Your task to perform on an android device: add a contact in the contacts app Image 0: 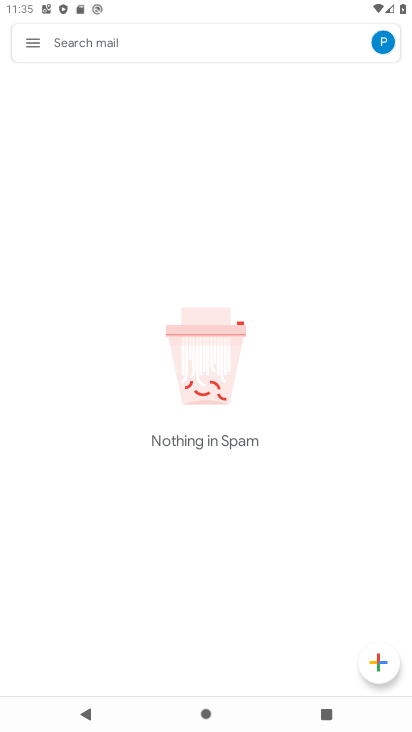
Step 0: press home button
Your task to perform on an android device: add a contact in the contacts app Image 1: 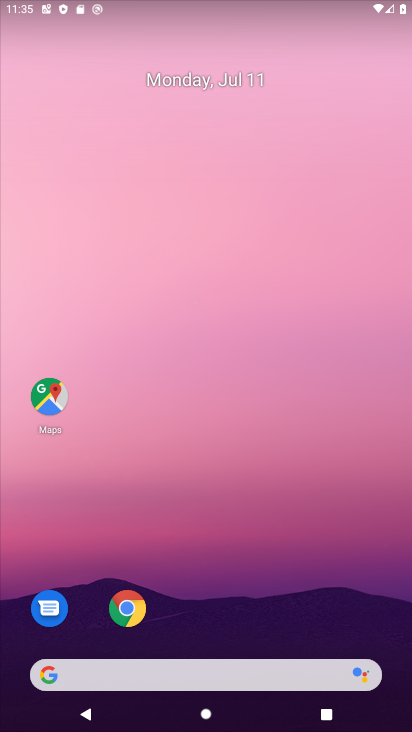
Step 1: drag from (222, 615) to (268, 64)
Your task to perform on an android device: add a contact in the contacts app Image 2: 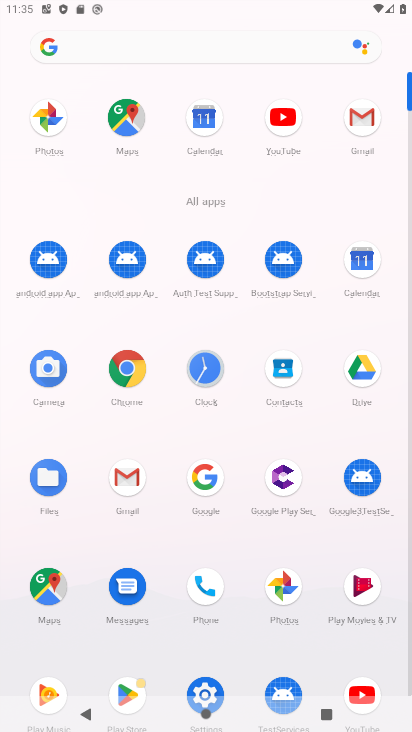
Step 2: click (285, 382)
Your task to perform on an android device: add a contact in the contacts app Image 3: 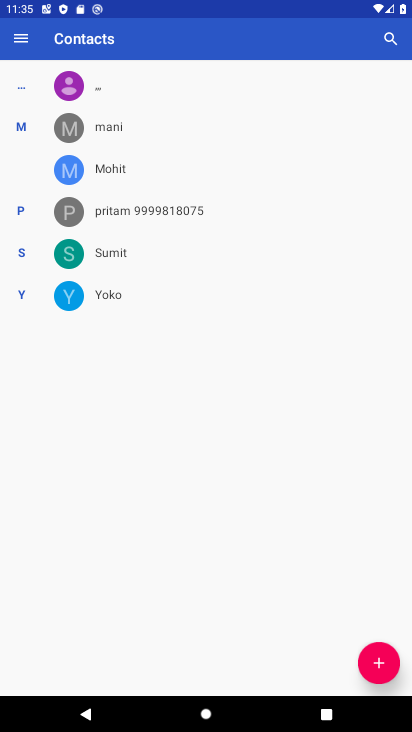
Step 3: click (382, 650)
Your task to perform on an android device: add a contact in the contacts app Image 4: 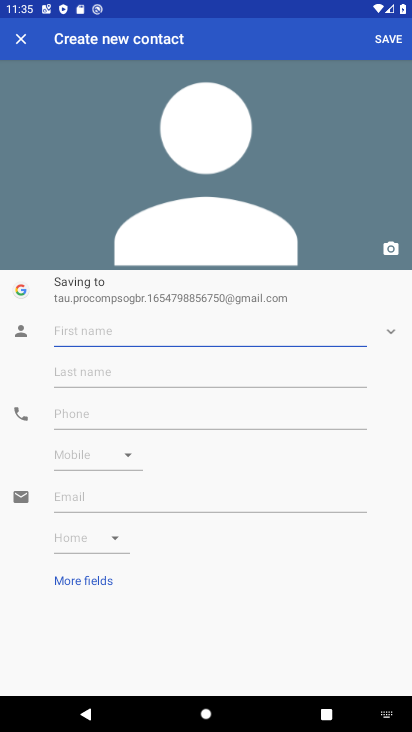
Step 4: type ","
Your task to perform on an android device: add a contact in the contacts app Image 5: 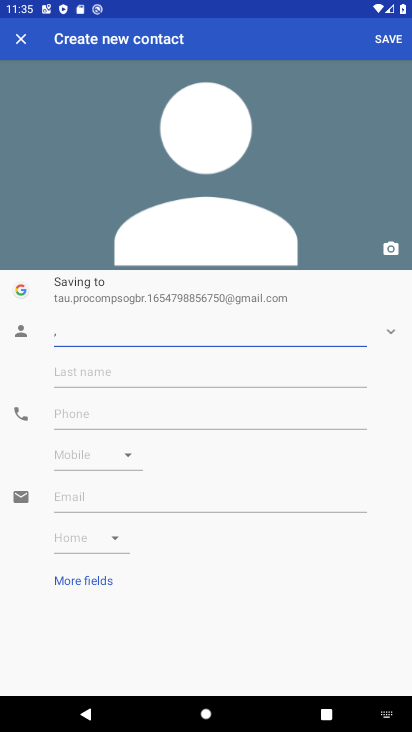
Step 5: click (241, 405)
Your task to perform on an android device: add a contact in the contacts app Image 6: 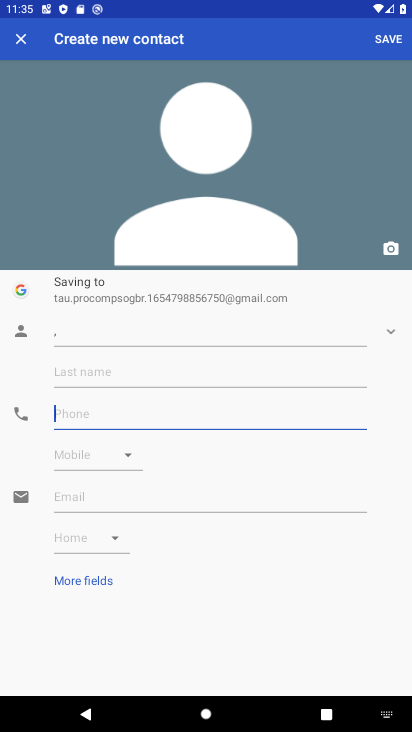
Step 6: type "9876545678"
Your task to perform on an android device: add a contact in the contacts app Image 7: 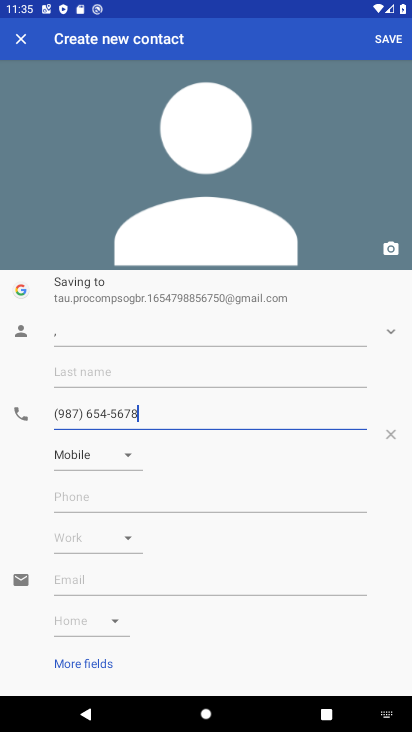
Step 7: click (394, 25)
Your task to perform on an android device: add a contact in the contacts app Image 8: 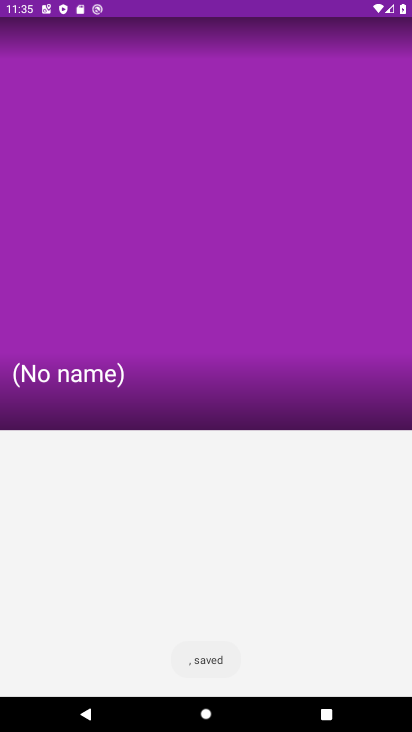
Step 8: click (391, 40)
Your task to perform on an android device: add a contact in the contacts app Image 9: 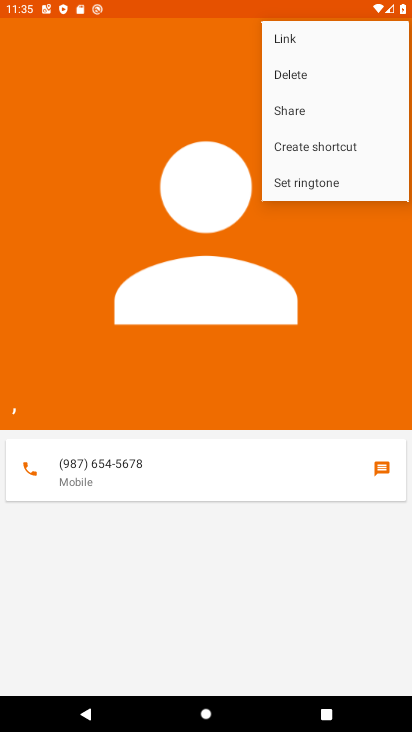
Step 9: task complete